Your task to perform on an android device: Go to sound settings Image 0: 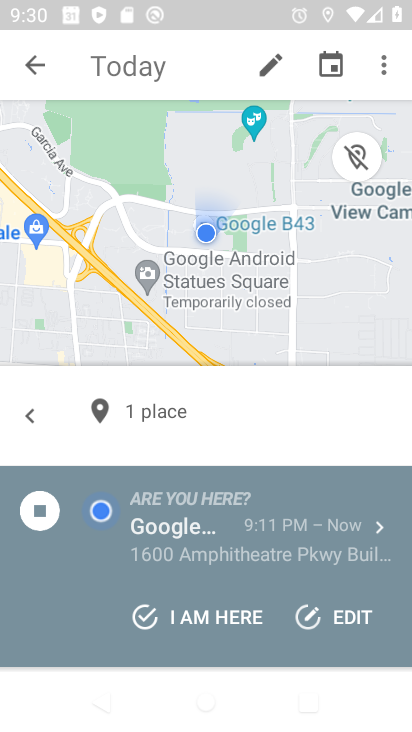
Step 0: press home button
Your task to perform on an android device: Go to sound settings Image 1: 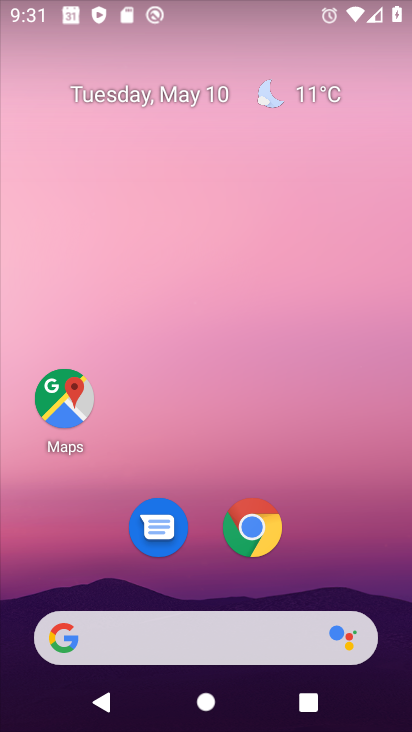
Step 1: drag from (317, 520) to (257, 69)
Your task to perform on an android device: Go to sound settings Image 2: 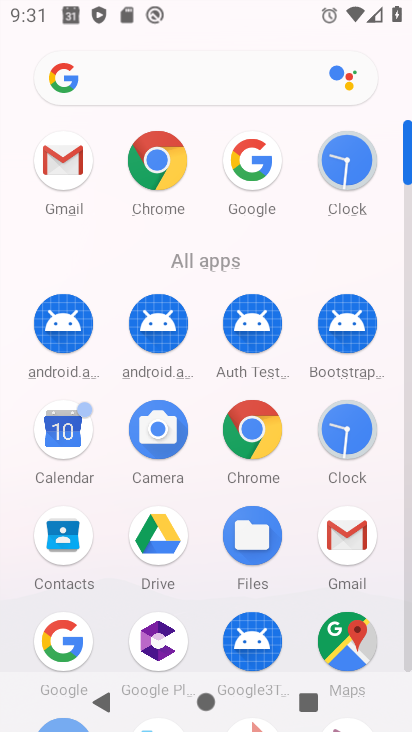
Step 2: drag from (272, 250) to (228, 14)
Your task to perform on an android device: Go to sound settings Image 3: 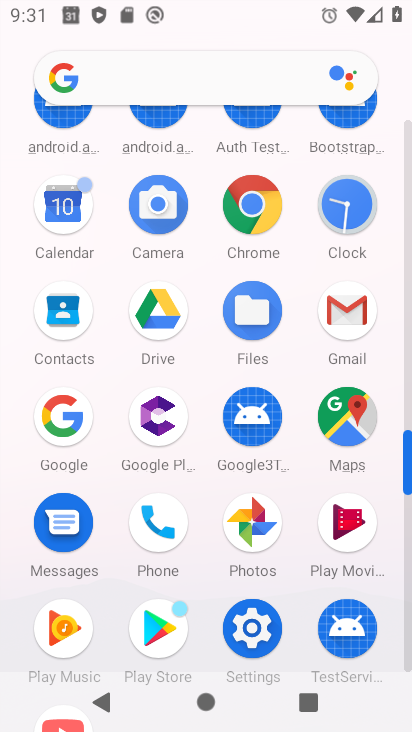
Step 3: click (257, 637)
Your task to perform on an android device: Go to sound settings Image 4: 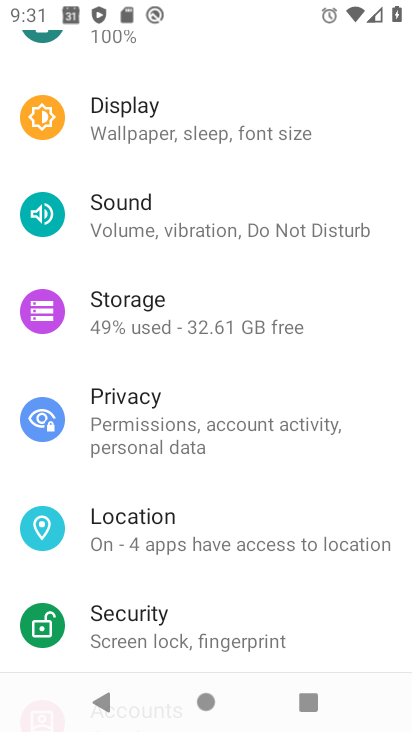
Step 4: click (141, 212)
Your task to perform on an android device: Go to sound settings Image 5: 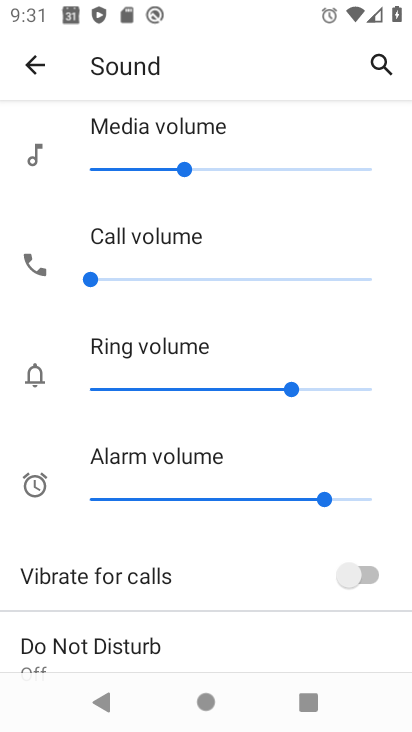
Step 5: task complete